Your task to perform on an android device: uninstall "Google Photos" Image 0: 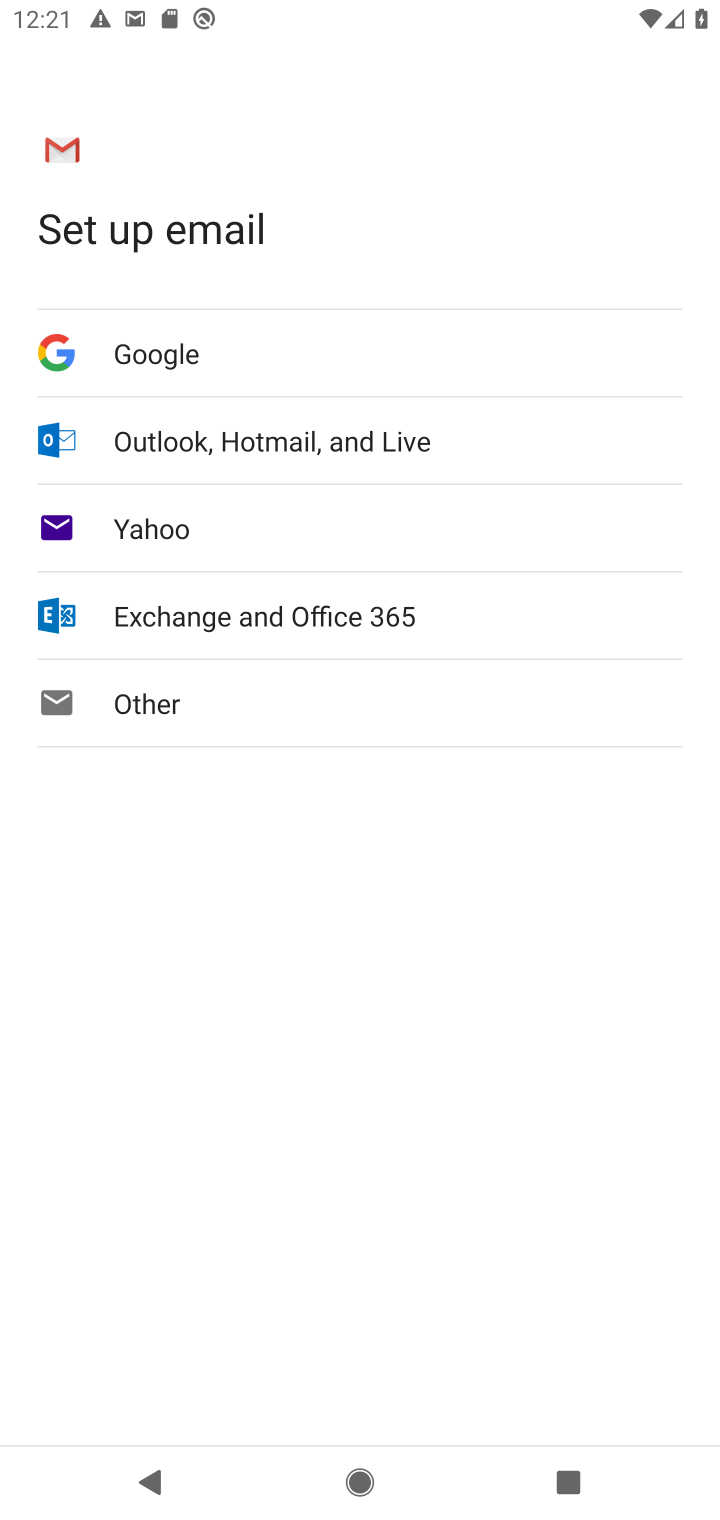
Step 0: press home button
Your task to perform on an android device: uninstall "Google Photos" Image 1: 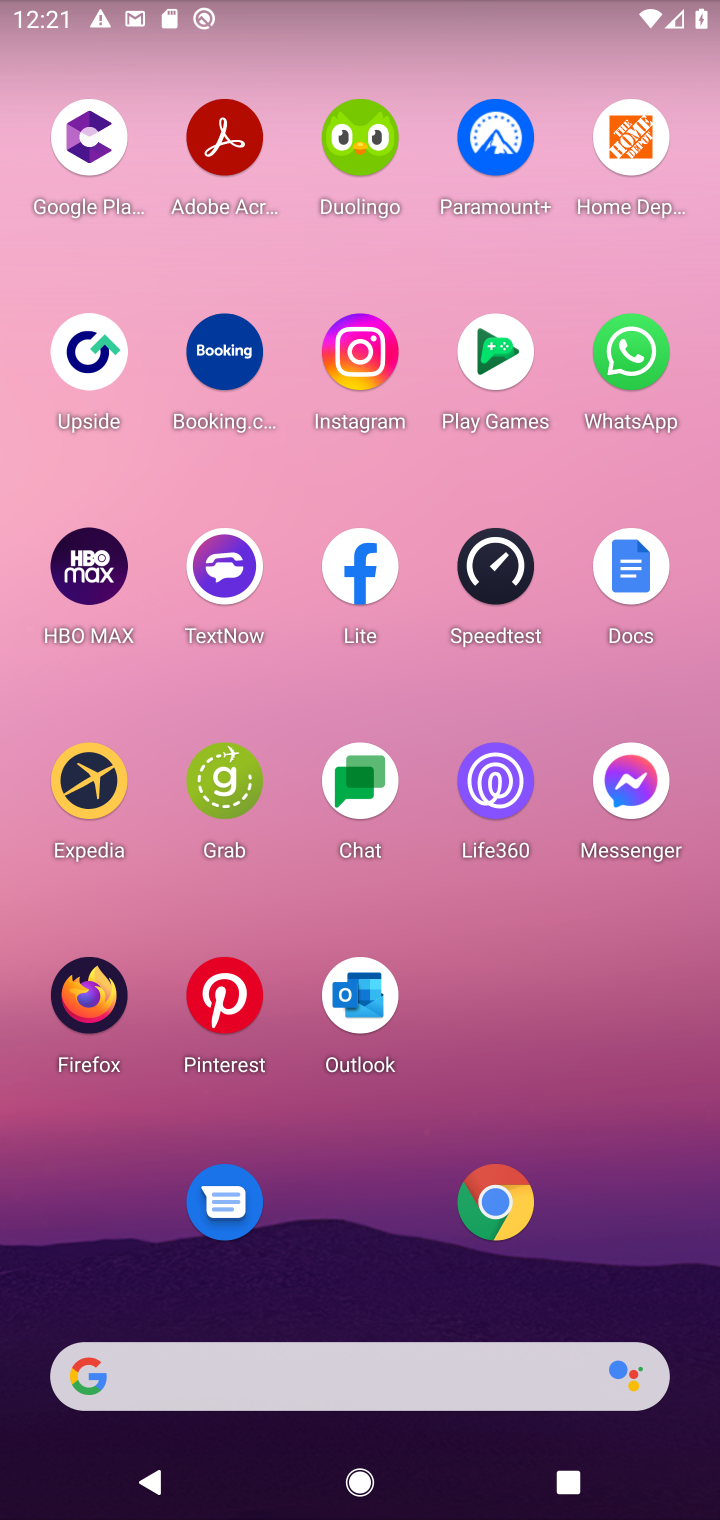
Step 1: drag from (369, 1326) to (451, 88)
Your task to perform on an android device: uninstall "Google Photos" Image 2: 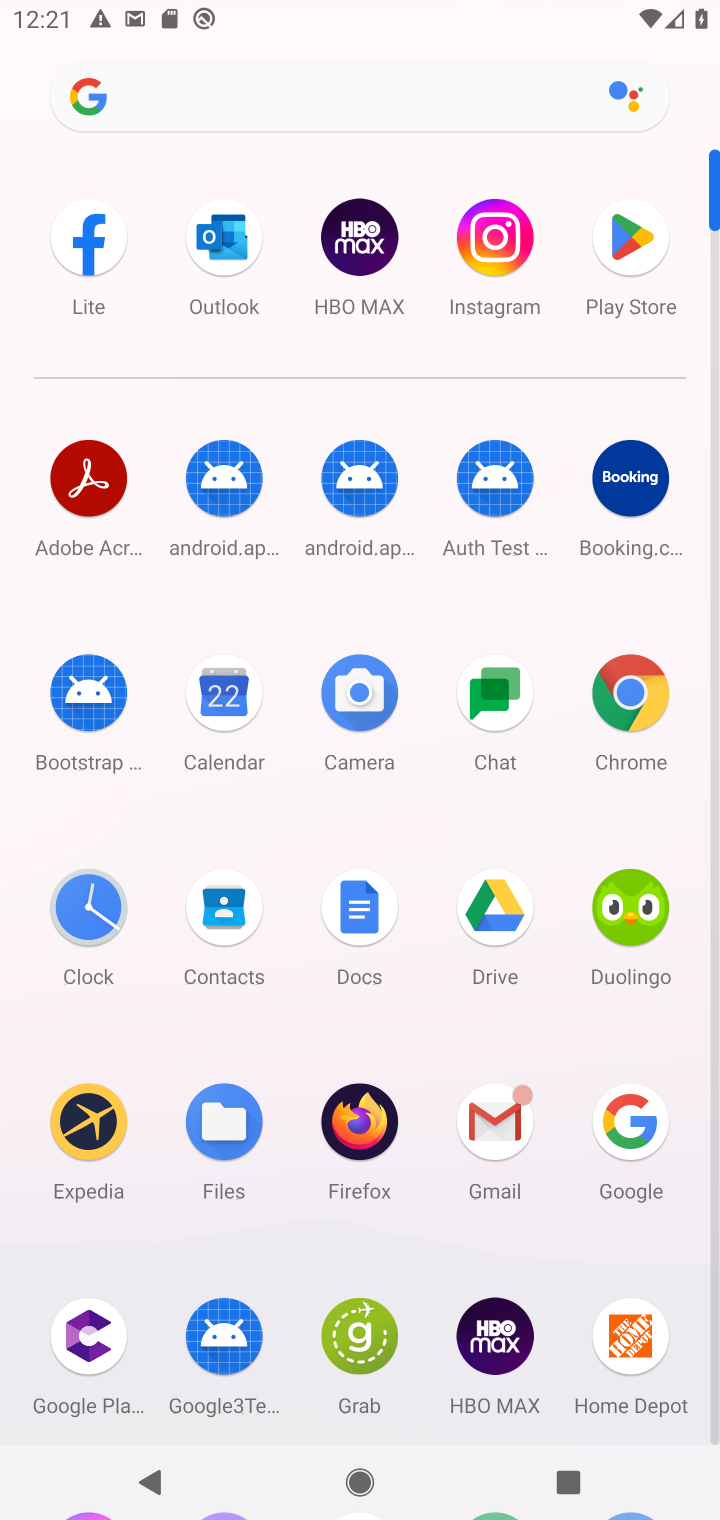
Step 2: click (629, 237)
Your task to perform on an android device: uninstall "Google Photos" Image 3: 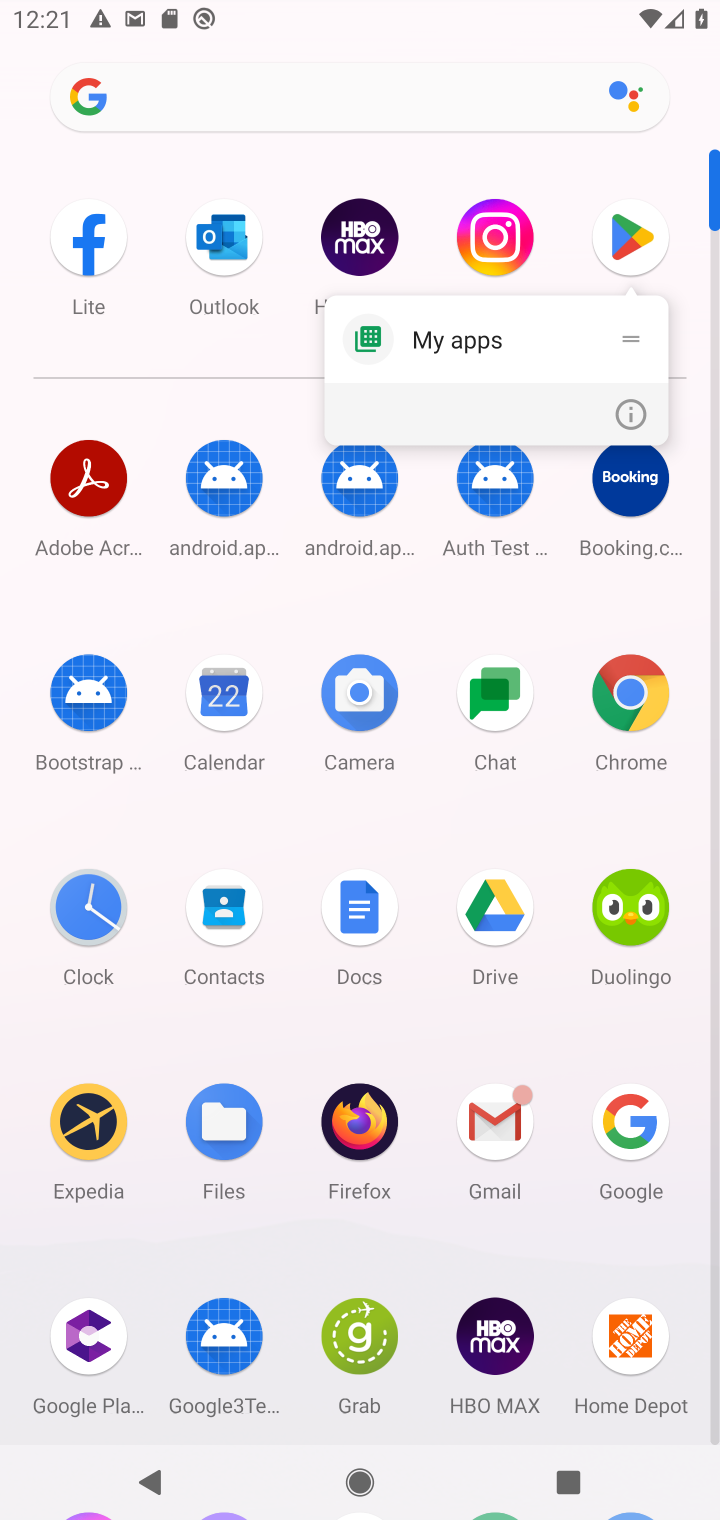
Step 3: click (619, 226)
Your task to perform on an android device: uninstall "Google Photos" Image 4: 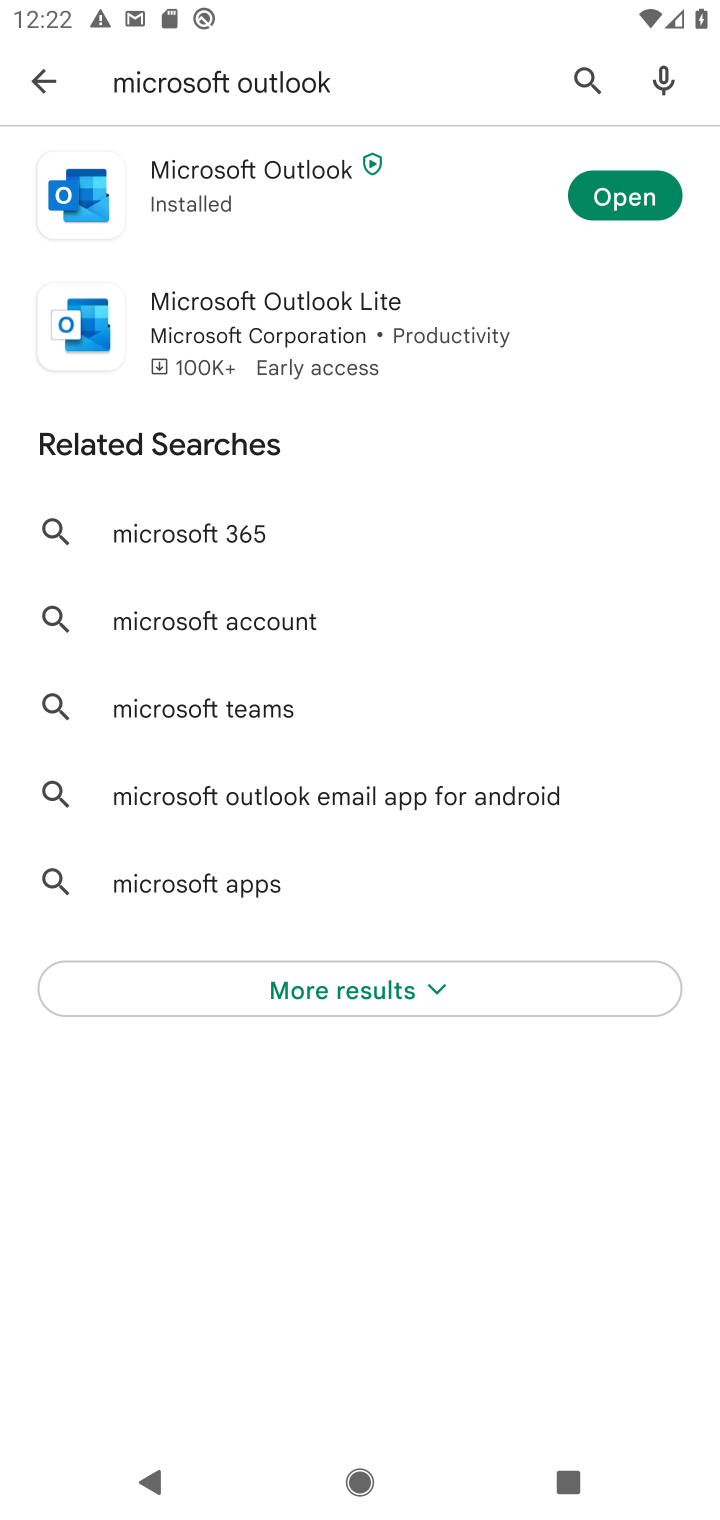
Step 4: click (583, 74)
Your task to perform on an android device: uninstall "Google Photos" Image 5: 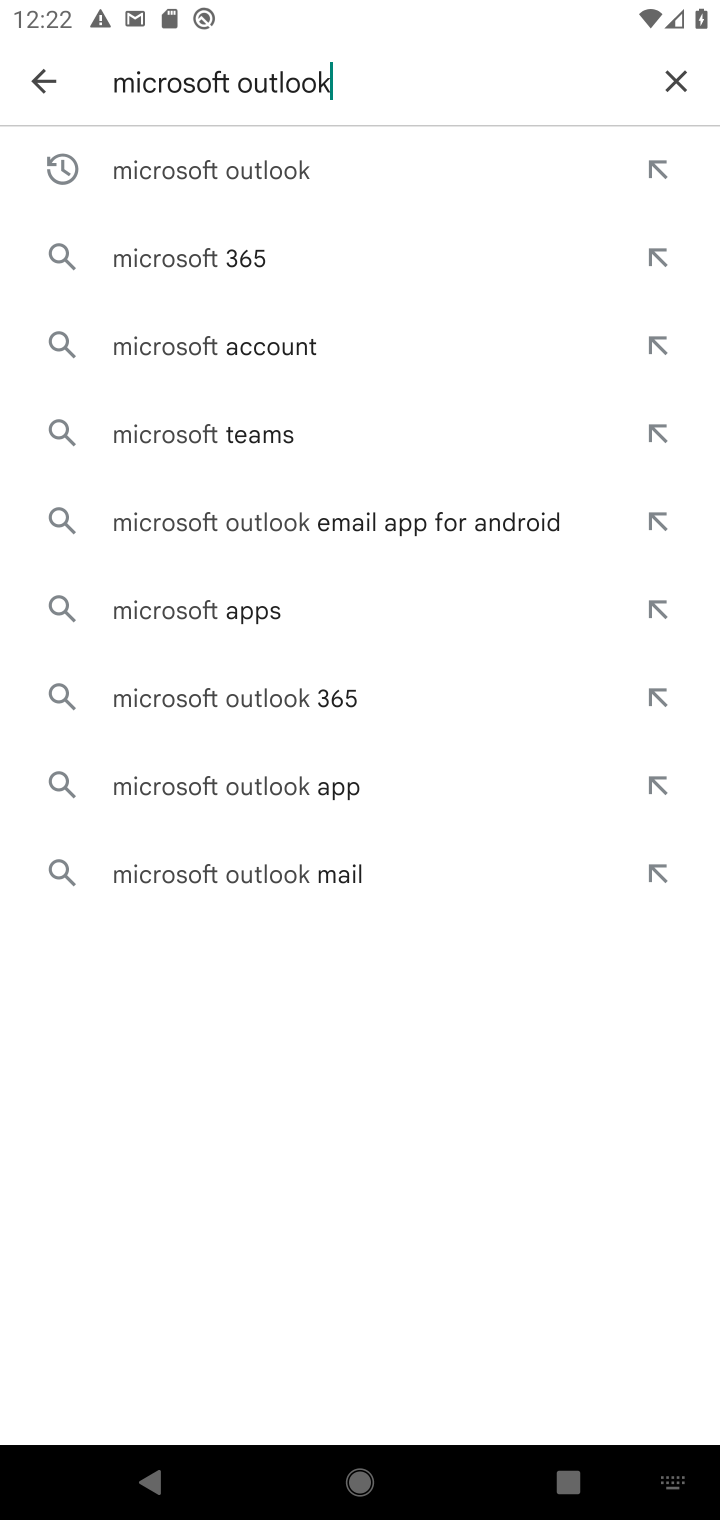
Step 5: click (668, 75)
Your task to perform on an android device: uninstall "Google Photos" Image 6: 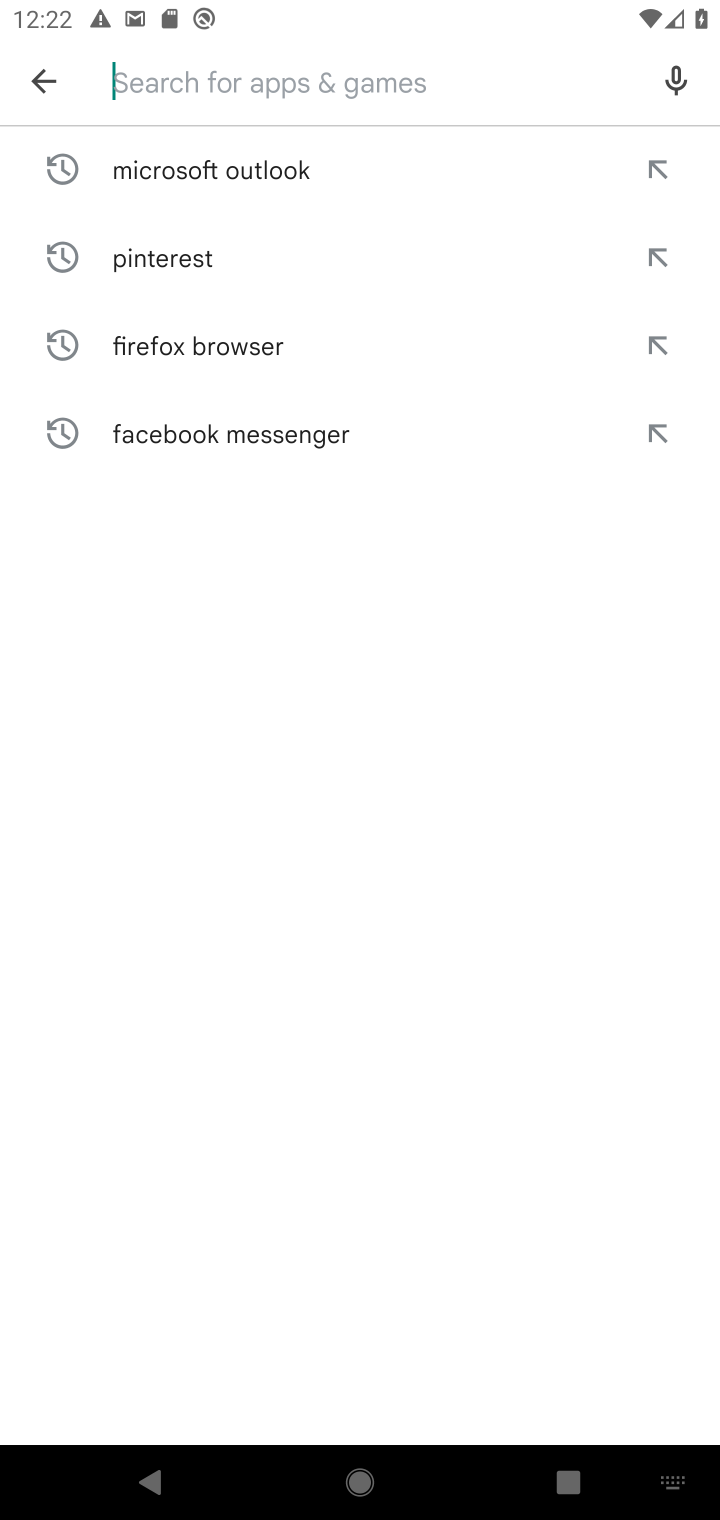
Step 6: type "Google Photos"
Your task to perform on an android device: uninstall "Google Photos" Image 7: 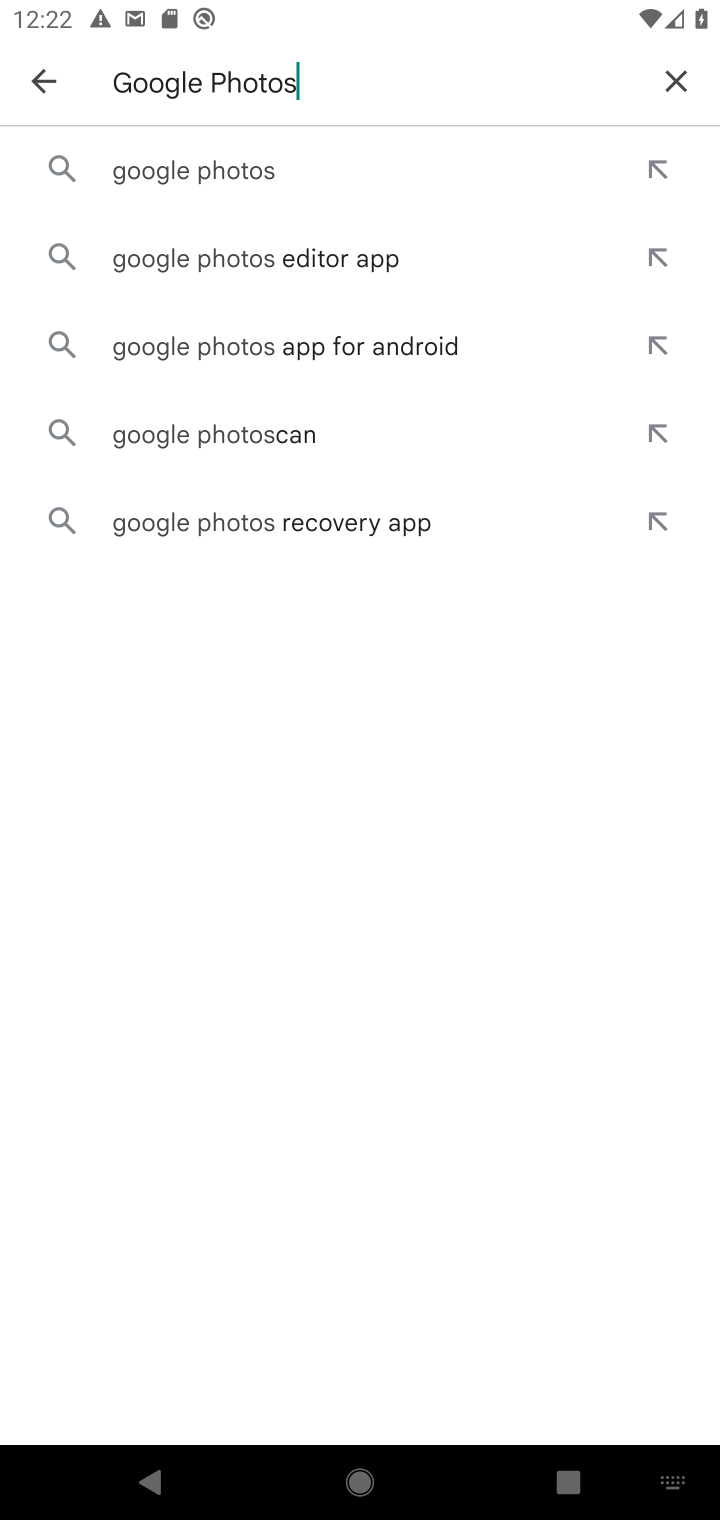
Step 7: click (155, 177)
Your task to perform on an android device: uninstall "Google Photos" Image 8: 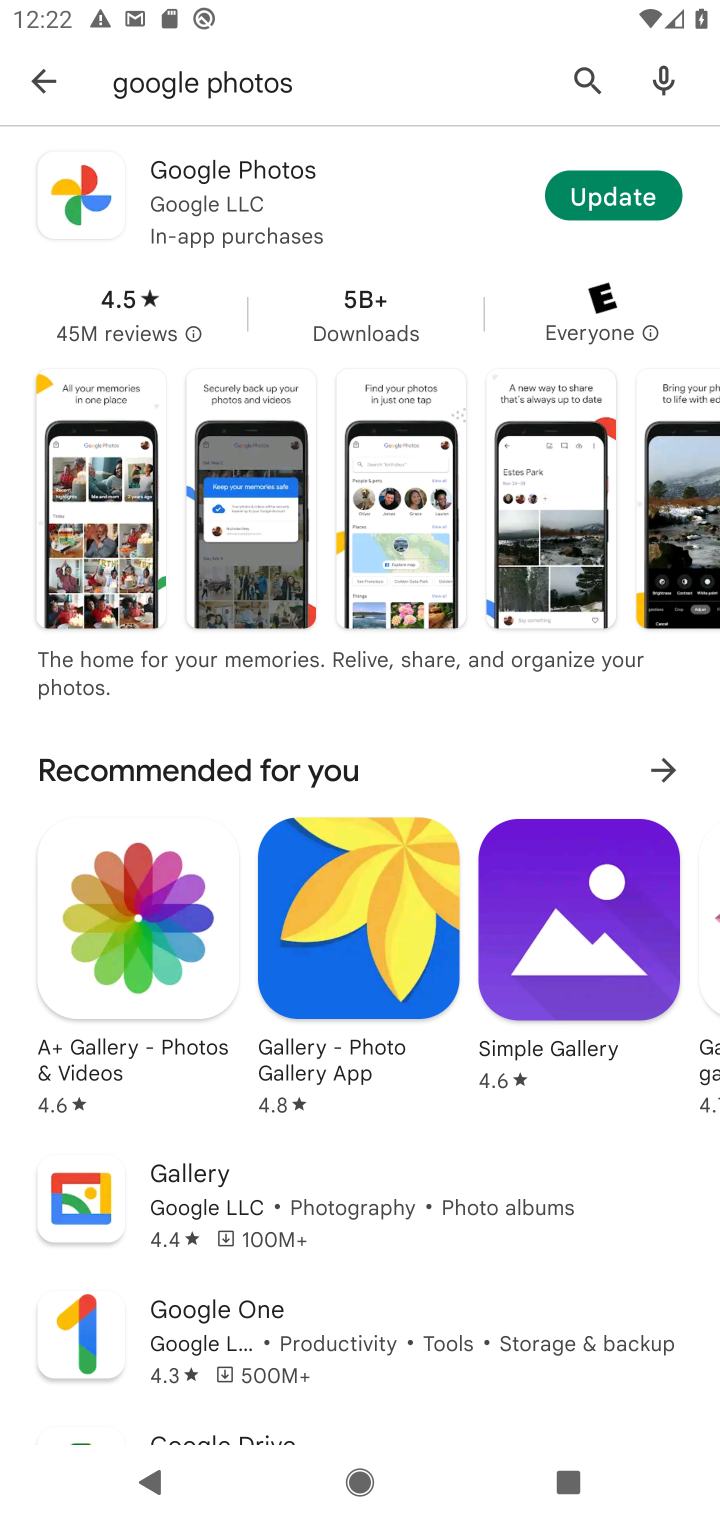
Step 8: click (239, 180)
Your task to perform on an android device: uninstall "Google Photos" Image 9: 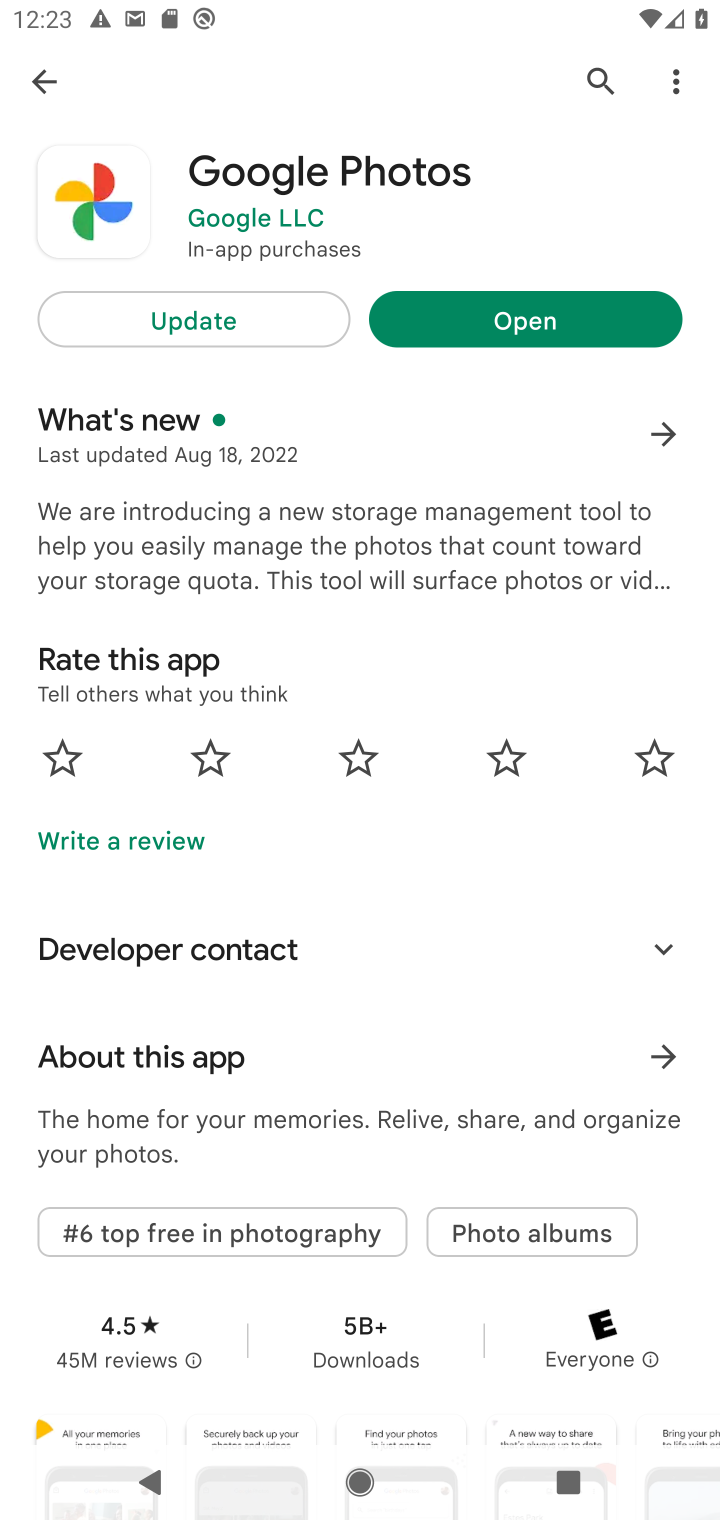
Step 9: task complete